Your task to perform on an android device: What is the recent news? Image 0: 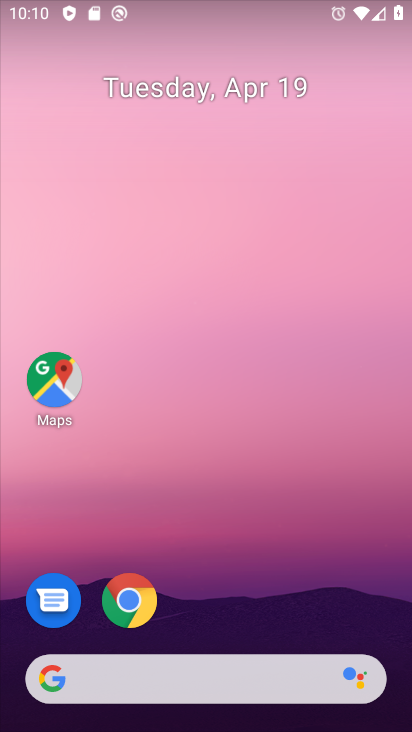
Step 0: click (180, 679)
Your task to perform on an android device: What is the recent news? Image 1: 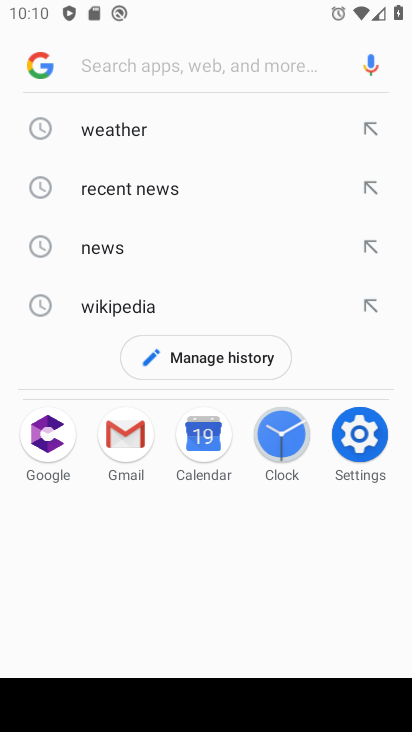
Step 1: click (190, 192)
Your task to perform on an android device: What is the recent news? Image 2: 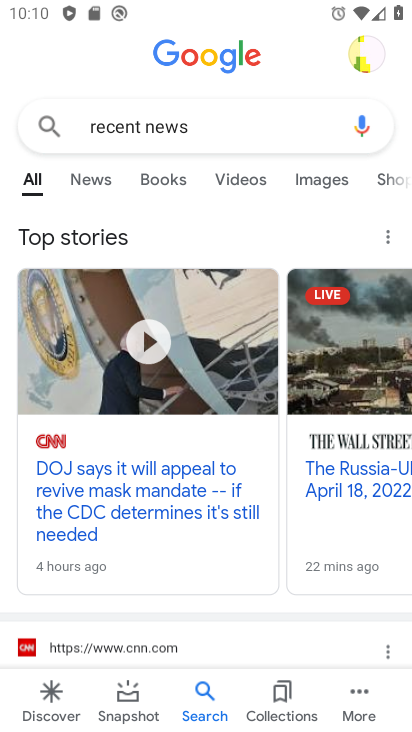
Step 2: task complete